Your task to perform on an android device: Show me popular videos on Youtube Image 0: 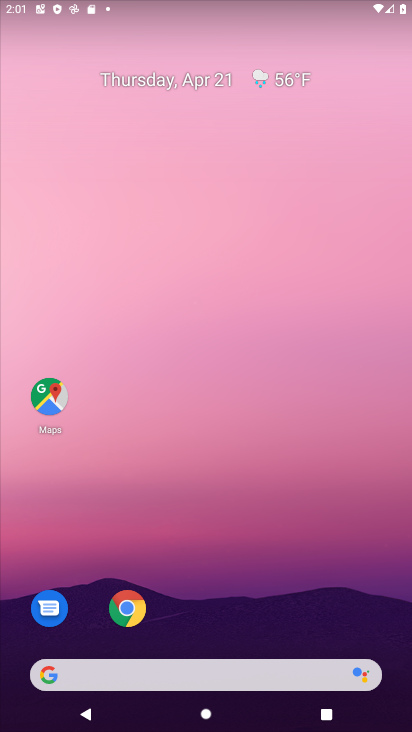
Step 0: drag from (227, 621) to (206, 77)
Your task to perform on an android device: Show me popular videos on Youtube Image 1: 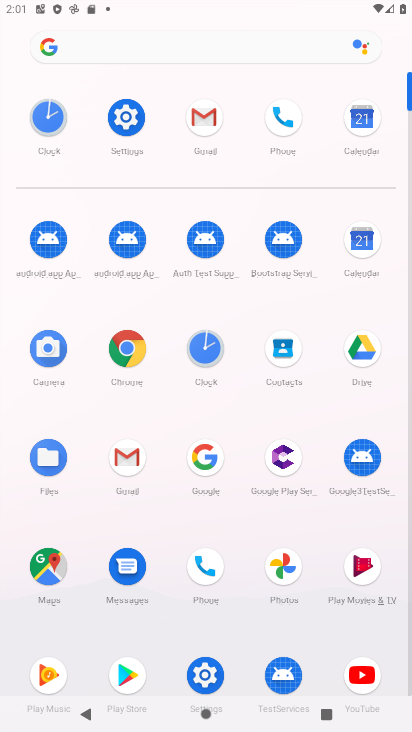
Step 1: click (354, 677)
Your task to perform on an android device: Show me popular videos on Youtube Image 2: 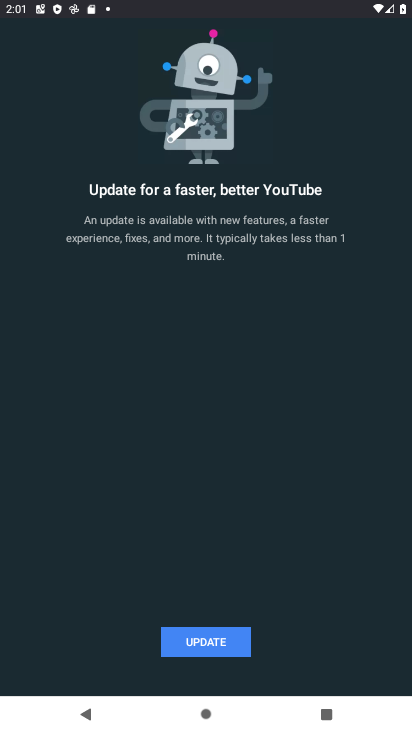
Step 2: click (213, 633)
Your task to perform on an android device: Show me popular videos on Youtube Image 3: 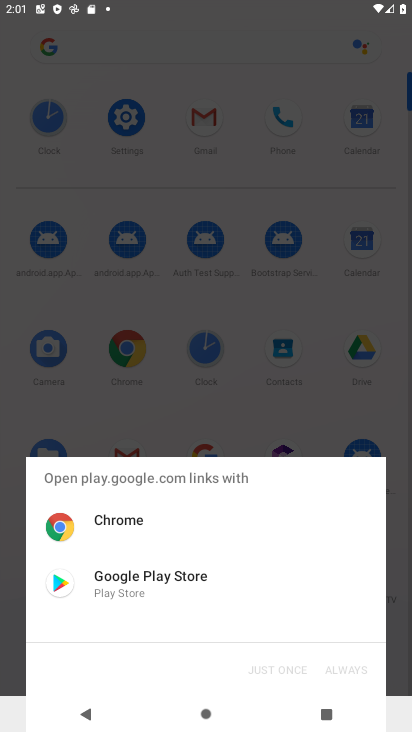
Step 3: click (185, 582)
Your task to perform on an android device: Show me popular videos on Youtube Image 4: 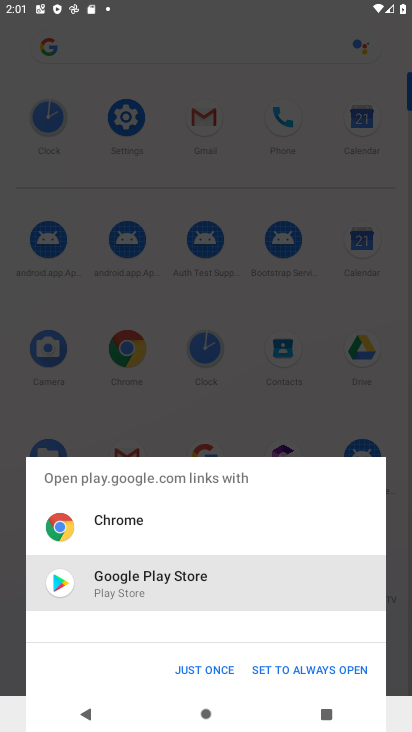
Step 4: click (181, 668)
Your task to perform on an android device: Show me popular videos on Youtube Image 5: 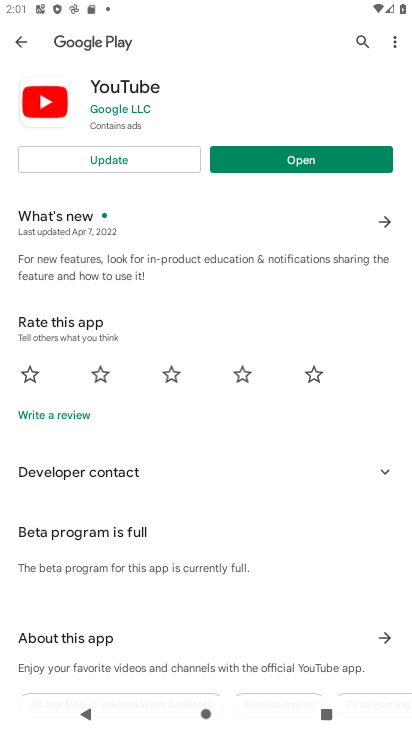
Step 5: click (161, 162)
Your task to perform on an android device: Show me popular videos on Youtube Image 6: 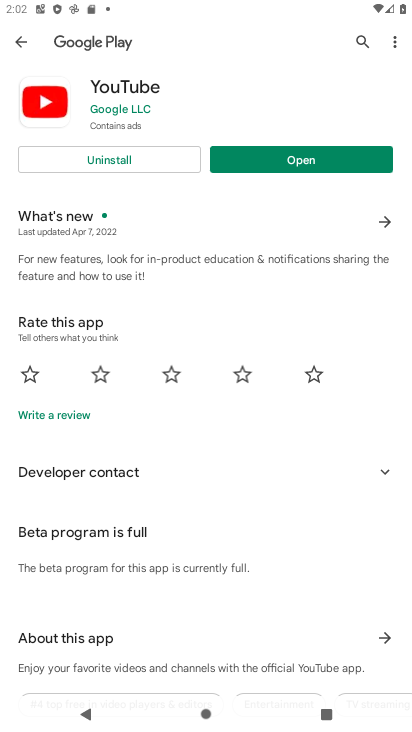
Step 6: click (277, 155)
Your task to perform on an android device: Show me popular videos on Youtube Image 7: 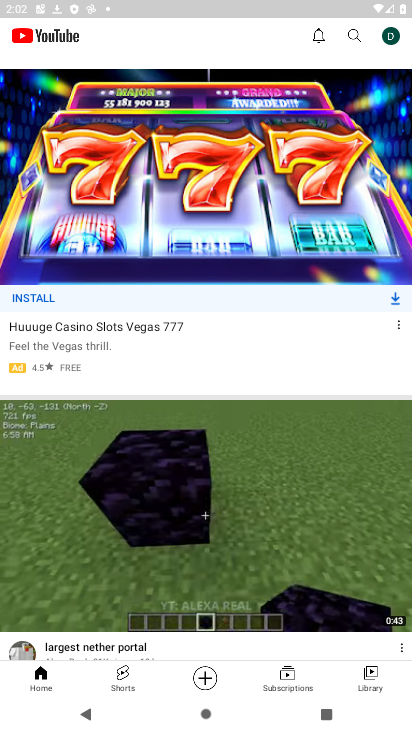
Step 7: drag from (210, 90) to (149, 558)
Your task to perform on an android device: Show me popular videos on Youtube Image 8: 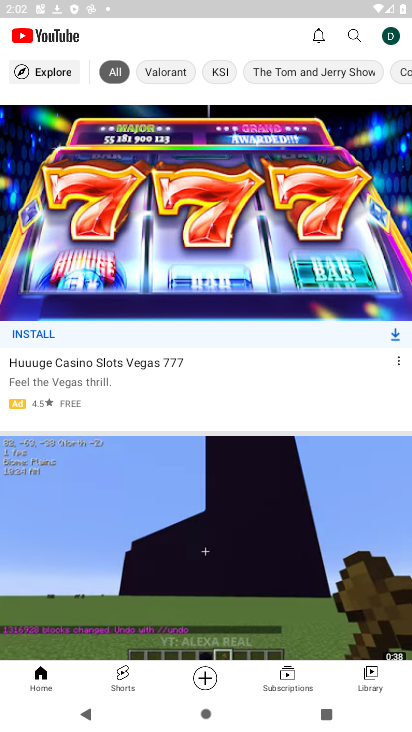
Step 8: click (59, 70)
Your task to perform on an android device: Show me popular videos on Youtube Image 9: 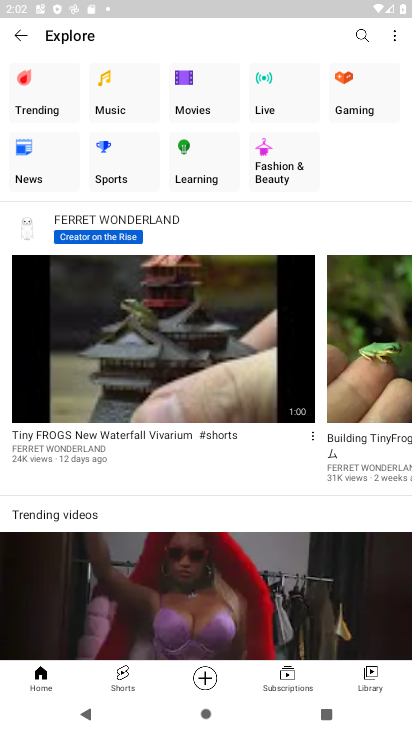
Step 9: click (45, 89)
Your task to perform on an android device: Show me popular videos on Youtube Image 10: 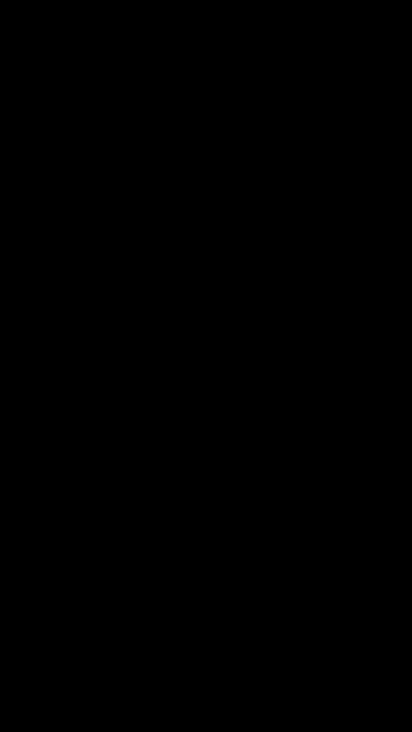
Step 10: task complete